Your task to perform on an android device: open the mobile data screen to see how much data has been used Image 0: 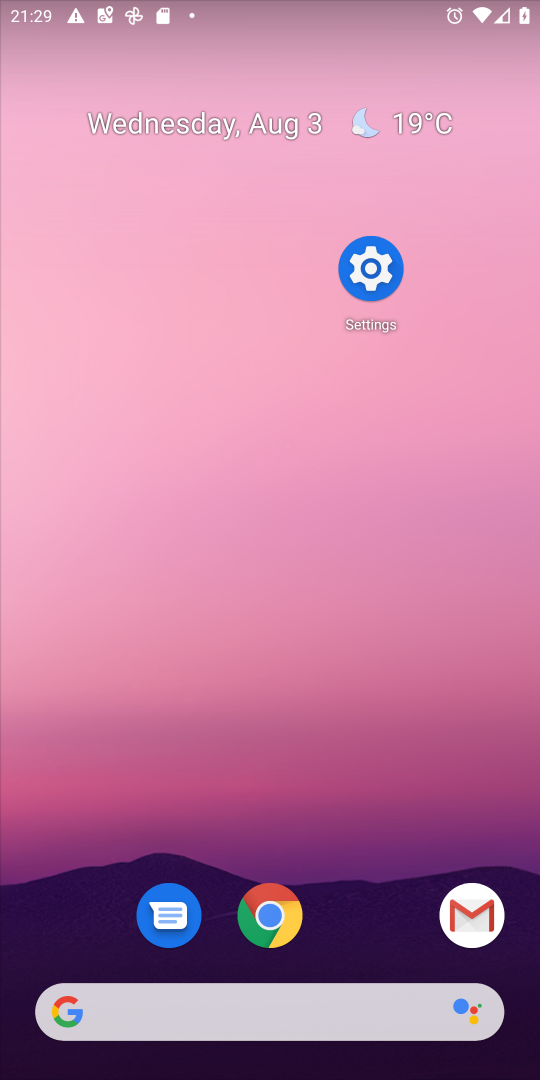
Step 0: press home button
Your task to perform on an android device: open the mobile data screen to see how much data has been used Image 1: 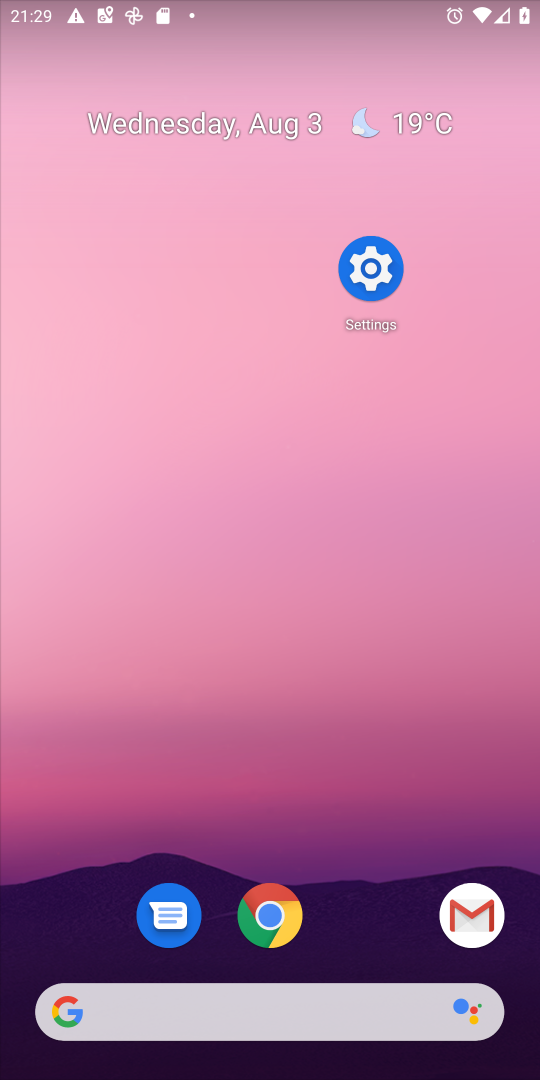
Step 1: drag from (374, 1039) to (243, 307)
Your task to perform on an android device: open the mobile data screen to see how much data has been used Image 2: 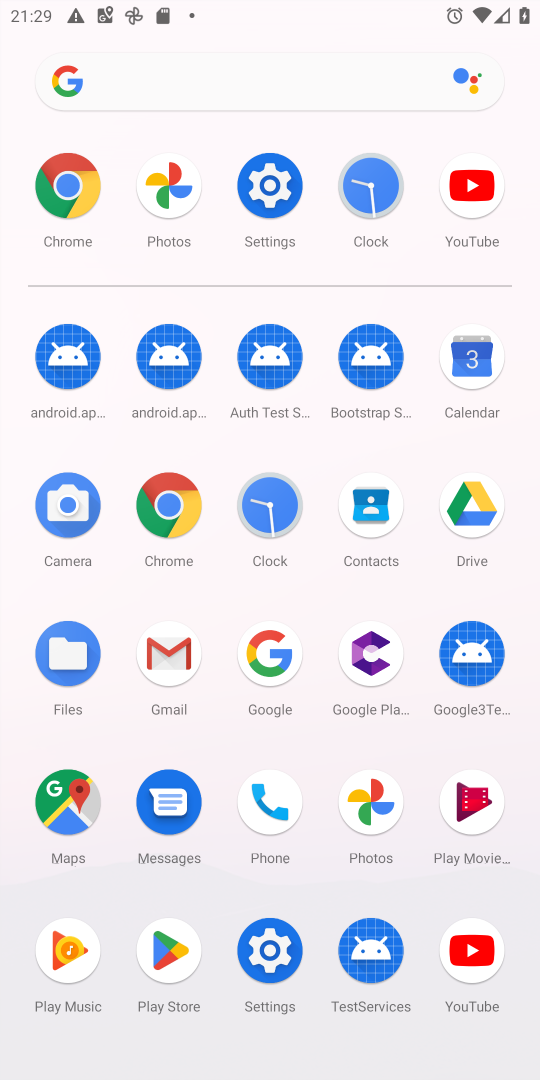
Step 2: click (270, 193)
Your task to perform on an android device: open the mobile data screen to see how much data has been used Image 3: 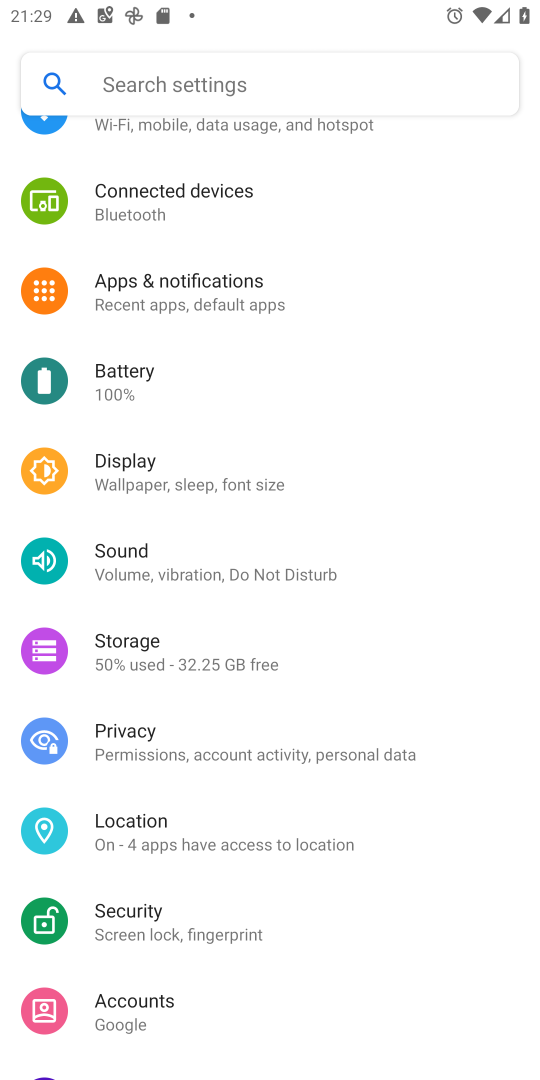
Step 3: click (187, 81)
Your task to perform on an android device: open the mobile data screen to see how much data has been used Image 4: 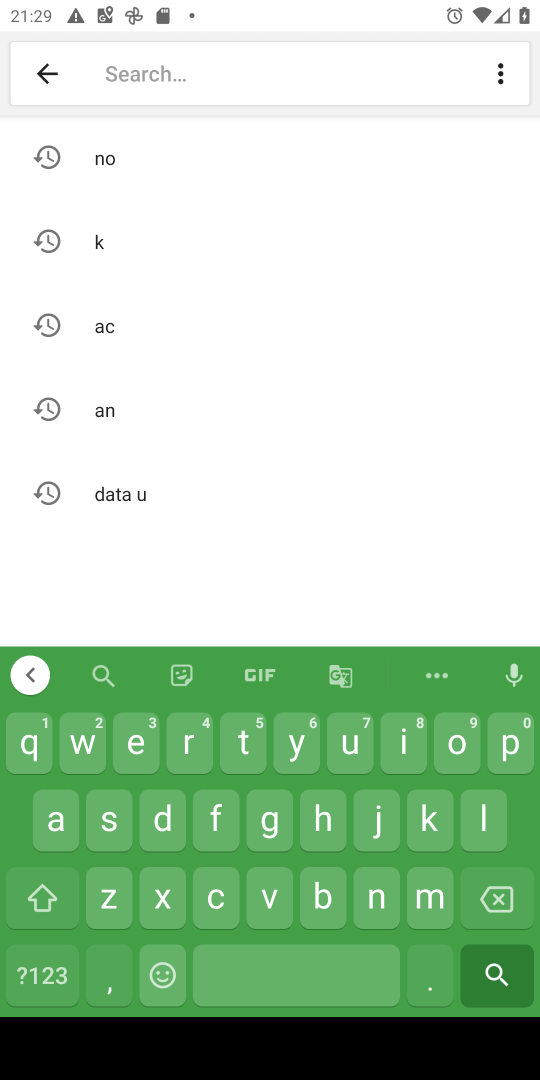
Step 4: click (168, 488)
Your task to perform on an android device: open the mobile data screen to see how much data has been used Image 5: 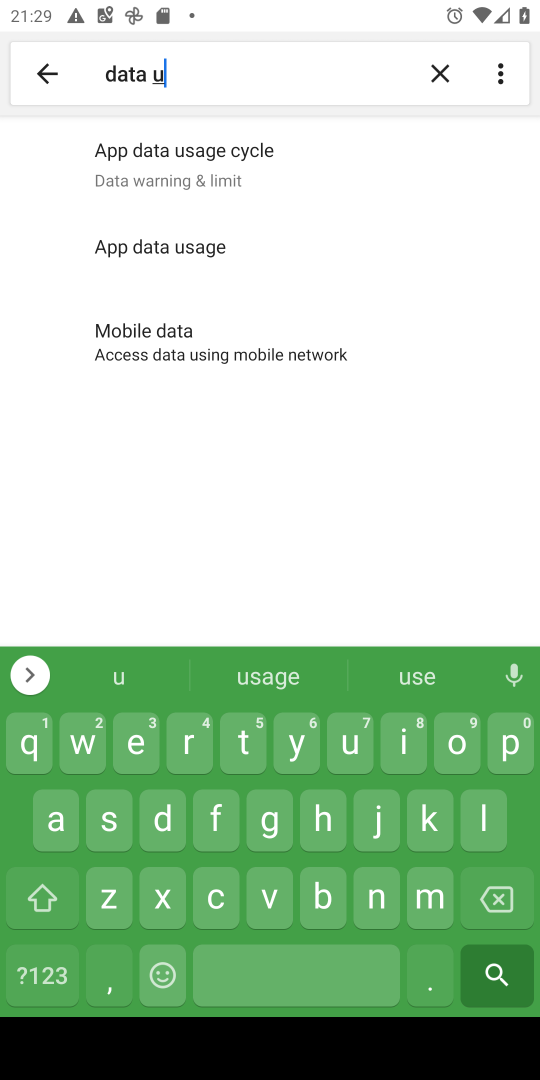
Step 5: click (184, 263)
Your task to perform on an android device: open the mobile data screen to see how much data has been used Image 6: 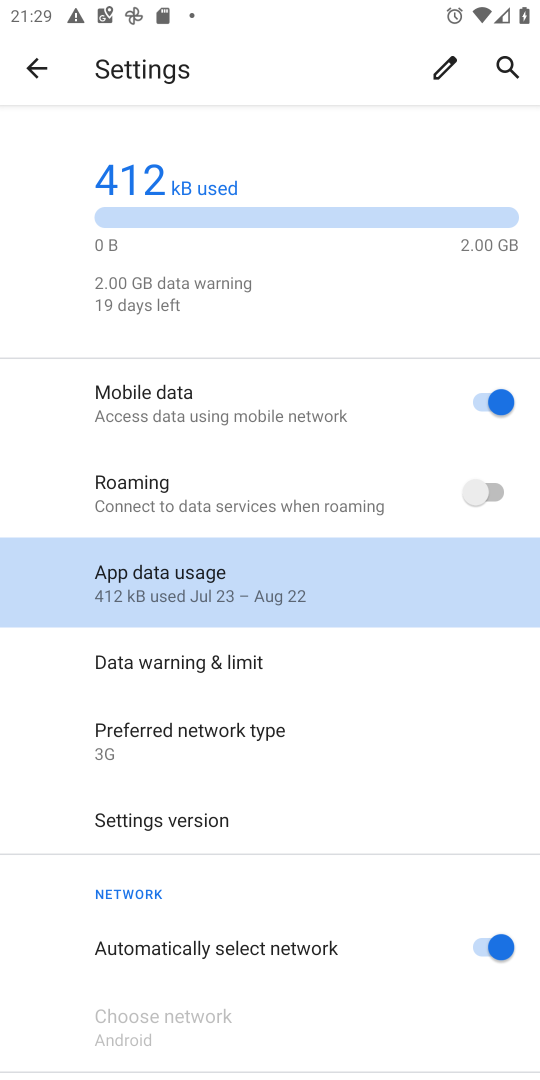
Step 6: click (177, 581)
Your task to perform on an android device: open the mobile data screen to see how much data has been used Image 7: 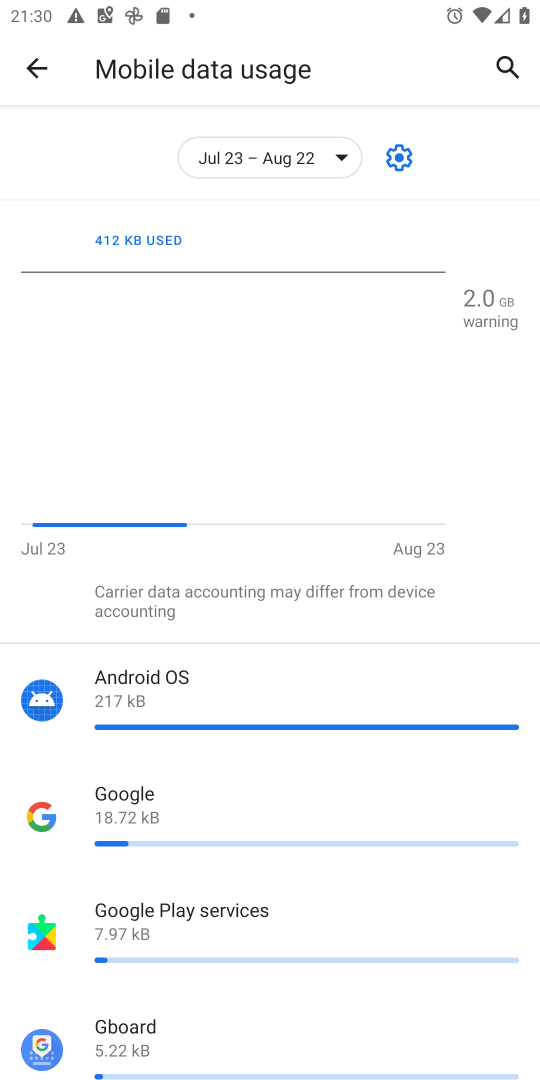
Step 7: task complete